Your task to perform on an android device: toggle notification dots Image 0: 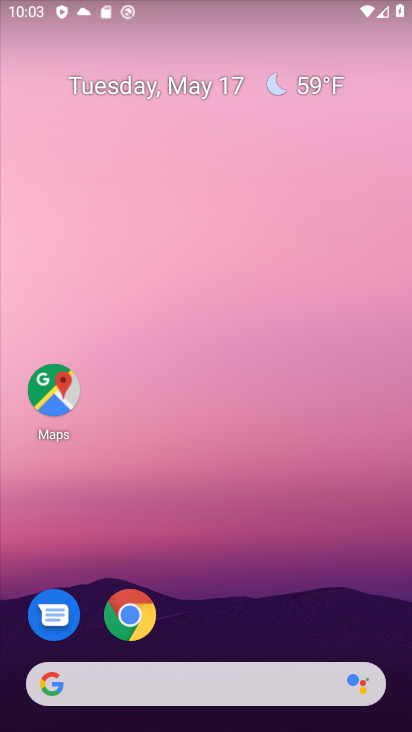
Step 0: drag from (260, 625) to (145, 32)
Your task to perform on an android device: toggle notification dots Image 1: 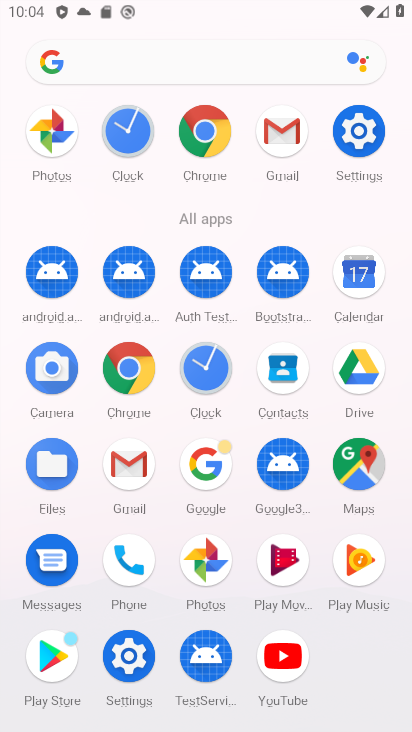
Step 1: click (358, 133)
Your task to perform on an android device: toggle notification dots Image 2: 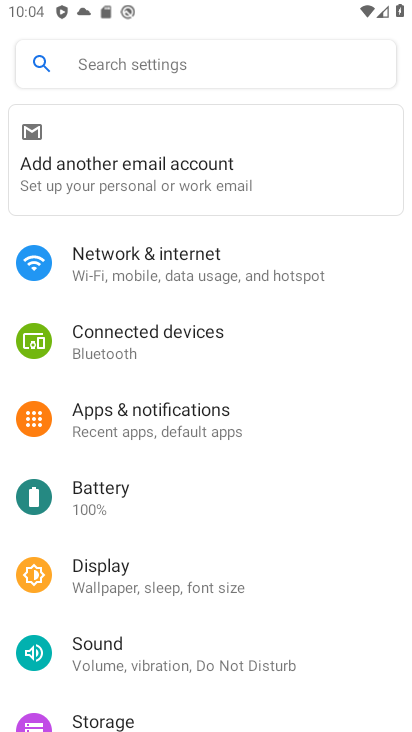
Step 2: click (136, 441)
Your task to perform on an android device: toggle notification dots Image 3: 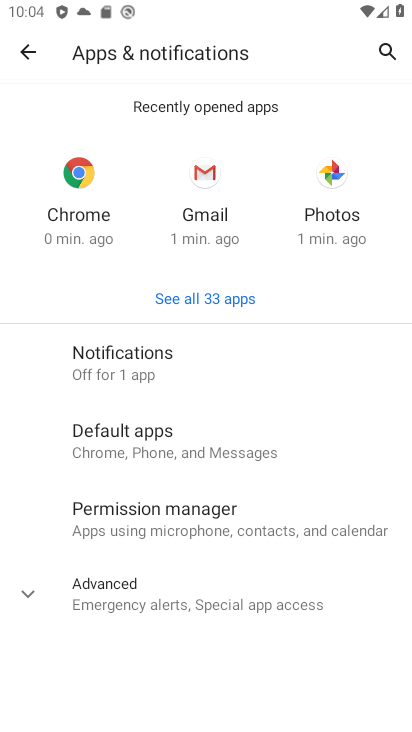
Step 3: click (146, 600)
Your task to perform on an android device: toggle notification dots Image 4: 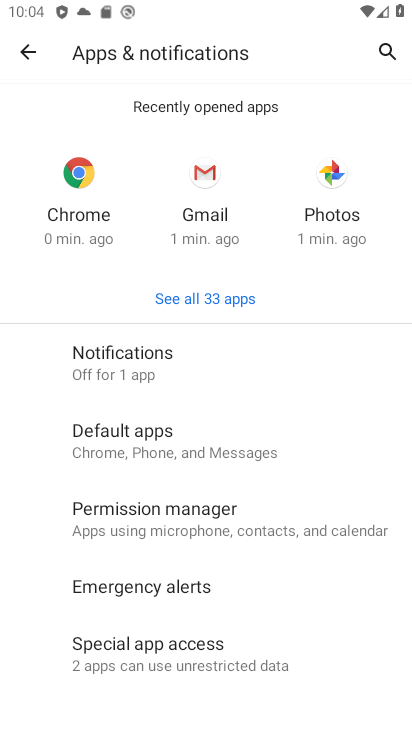
Step 4: click (128, 370)
Your task to perform on an android device: toggle notification dots Image 5: 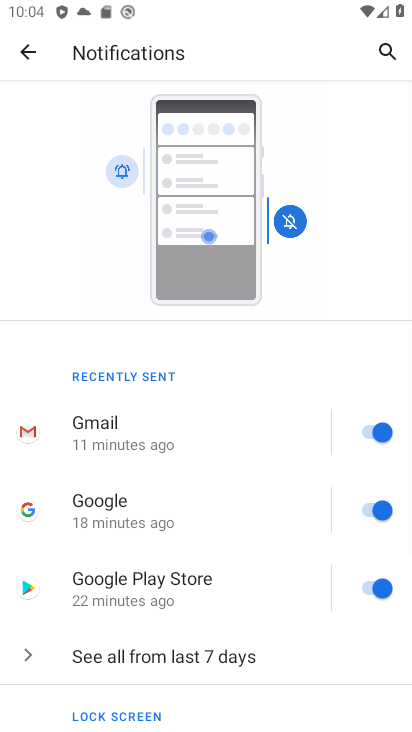
Step 5: drag from (171, 660) to (160, 508)
Your task to perform on an android device: toggle notification dots Image 6: 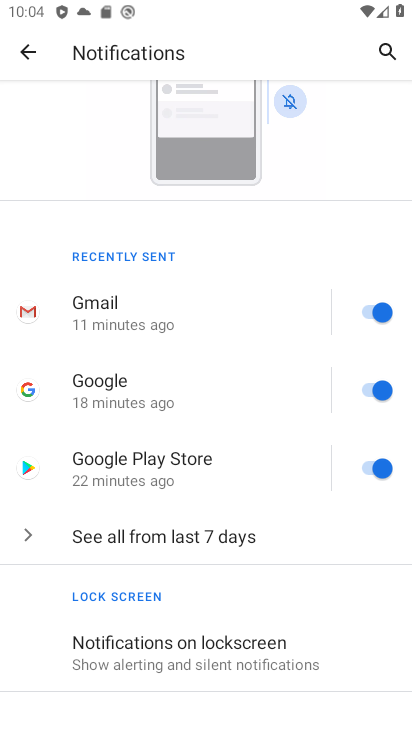
Step 6: drag from (191, 693) to (197, 444)
Your task to perform on an android device: toggle notification dots Image 7: 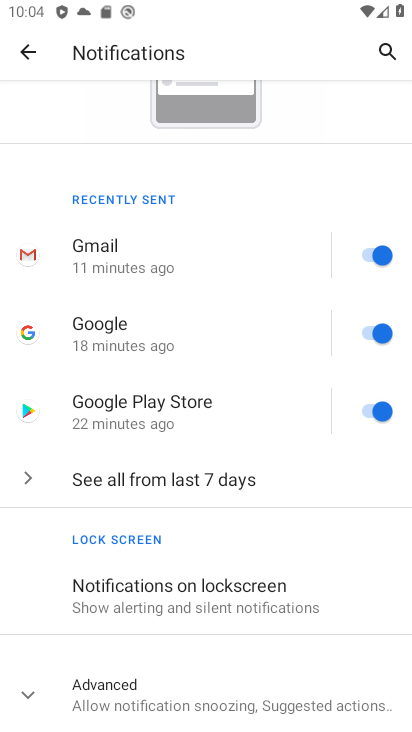
Step 7: click (123, 689)
Your task to perform on an android device: toggle notification dots Image 8: 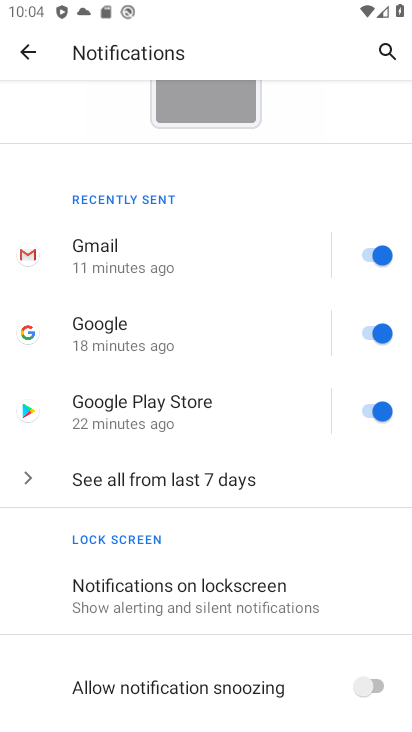
Step 8: click (148, 694)
Your task to perform on an android device: toggle notification dots Image 9: 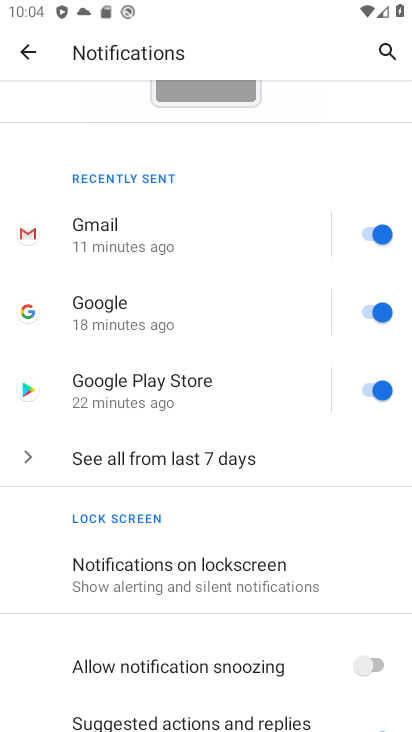
Step 9: drag from (238, 702) to (183, 321)
Your task to perform on an android device: toggle notification dots Image 10: 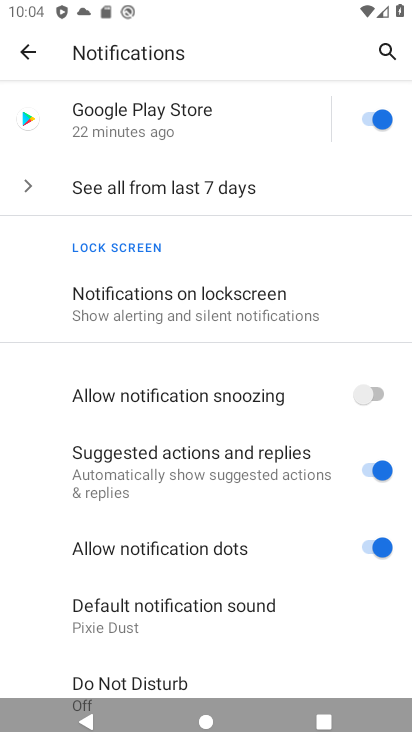
Step 10: drag from (249, 641) to (198, 424)
Your task to perform on an android device: toggle notification dots Image 11: 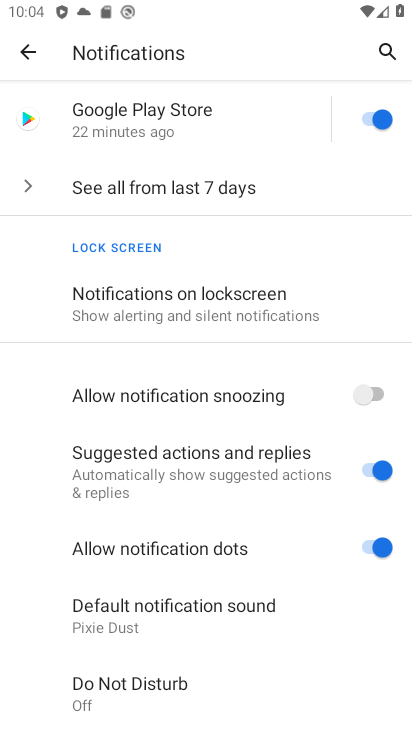
Step 11: click (370, 549)
Your task to perform on an android device: toggle notification dots Image 12: 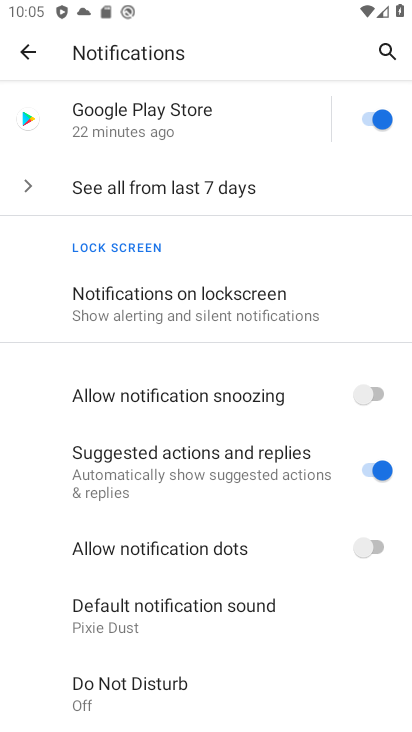
Step 12: task complete